Your task to perform on an android device: remove spam from my inbox in the gmail app Image 0: 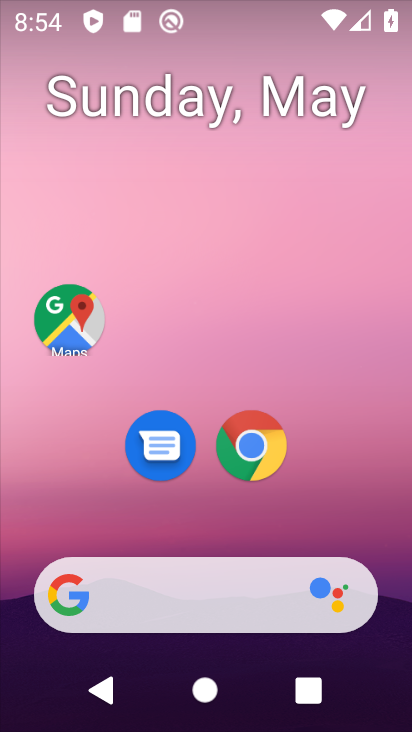
Step 0: drag from (188, 660) to (233, 59)
Your task to perform on an android device: remove spam from my inbox in the gmail app Image 1: 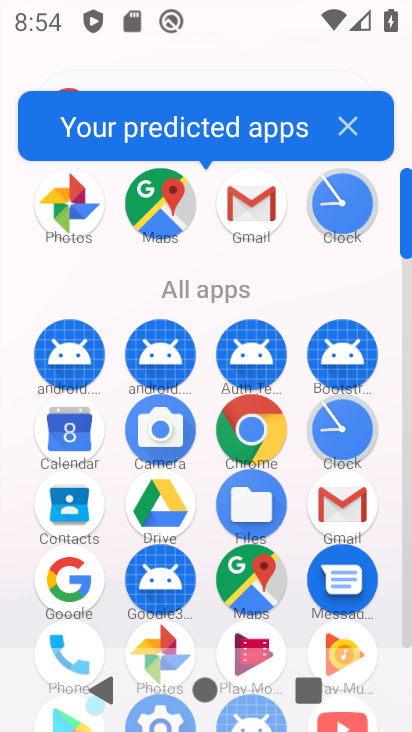
Step 1: click (351, 493)
Your task to perform on an android device: remove spam from my inbox in the gmail app Image 2: 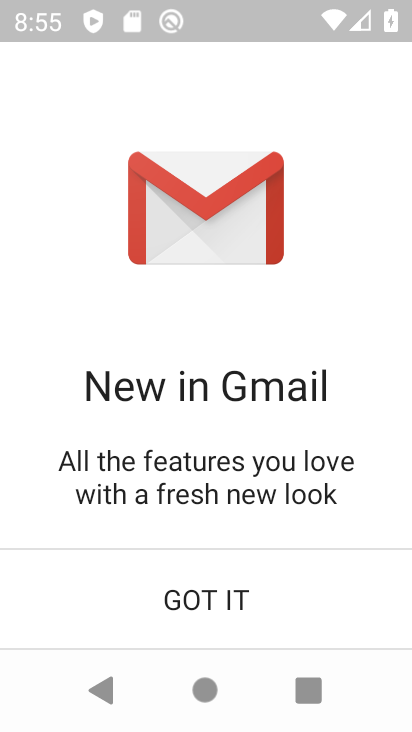
Step 2: click (238, 615)
Your task to perform on an android device: remove spam from my inbox in the gmail app Image 3: 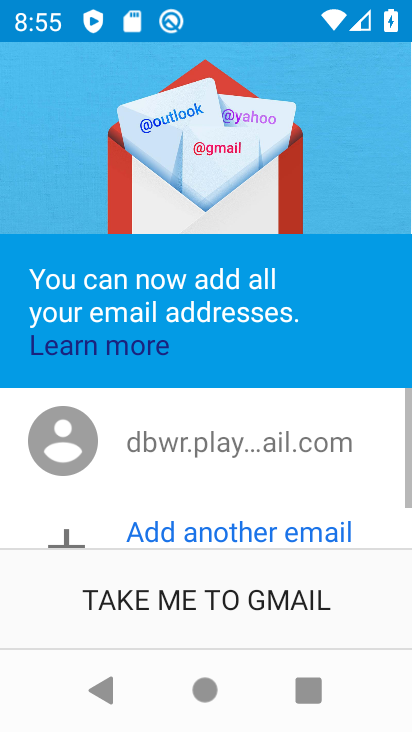
Step 3: click (238, 615)
Your task to perform on an android device: remove spam from my inbox in the gmail app Image 4: 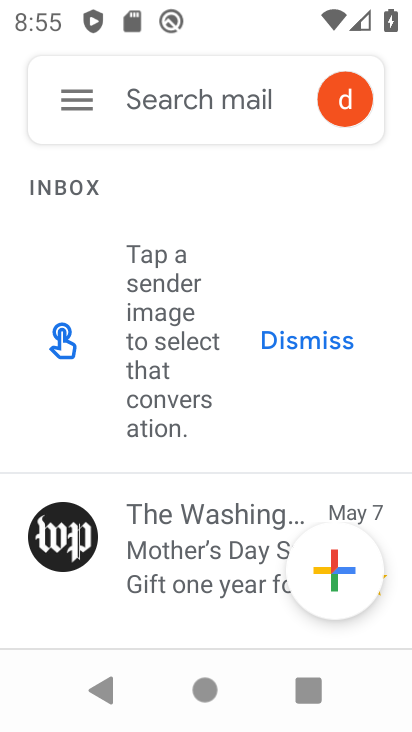
Step 4: click (63, 122)
Your task to perform on an android device: remove spam from my inbox in the gmail app Image 5: 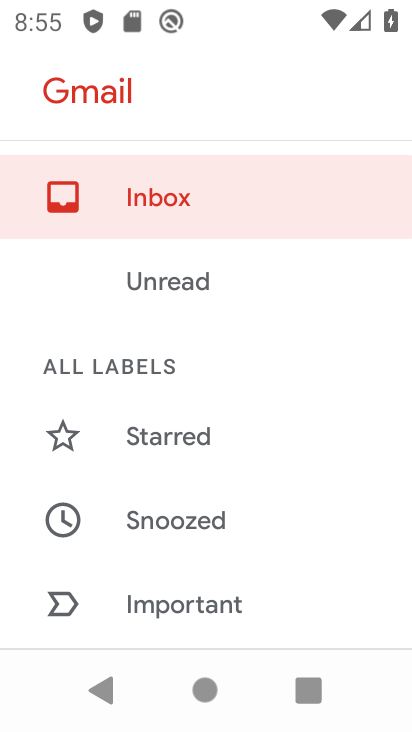
Step 5: drag from (223, 517) to (288, 228)
Your task to perform on an android device: remove spam from my inbox in the gmail app Image 6: 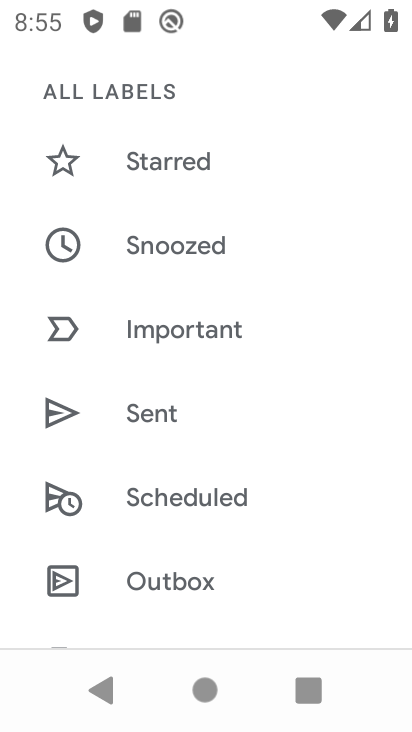
Step 6: drag from (159, 544) to (205, 389)
Your task to perform on an android device: remove spam from my inbox in the gmail app Image 7: 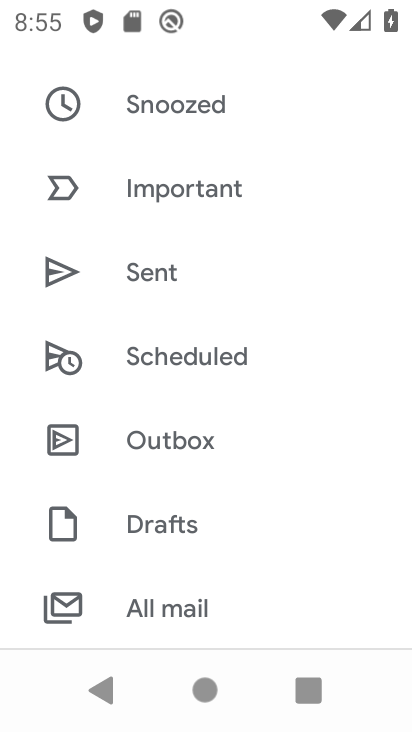
Step 7: drag from (274, 596) to (327, 344)
Your task to perform on an android device: remove spam from my inbox in the gmail app Image 8: 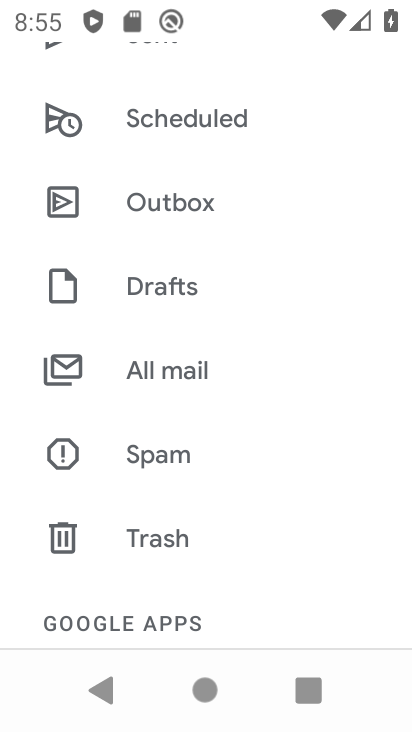
Step 8: click (265, 458)
Your task to perform on an android device: remove spam from my inbox in the gmail app Image 9: 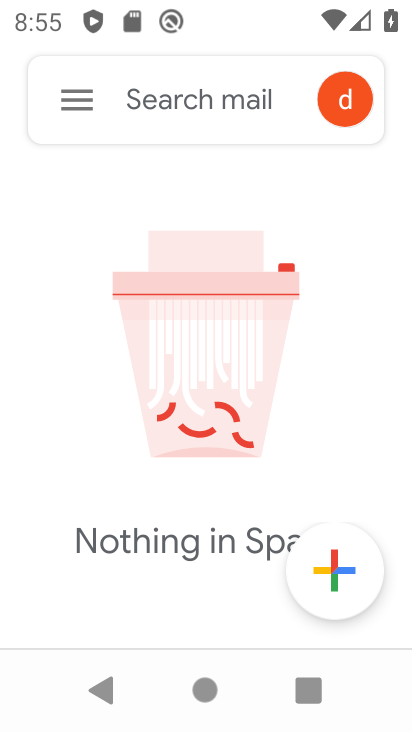
Step 9: task complete